Your task to perform on an android device: turn pop-ups off in chrome Image 0: 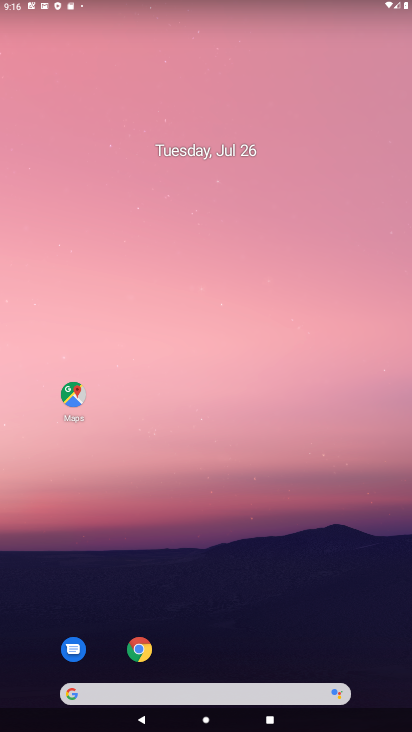
Step 0: drag from (183, 655) to (280, 59)
Your task to perform on an android device: turn pop-ups off in chrome Image 1: 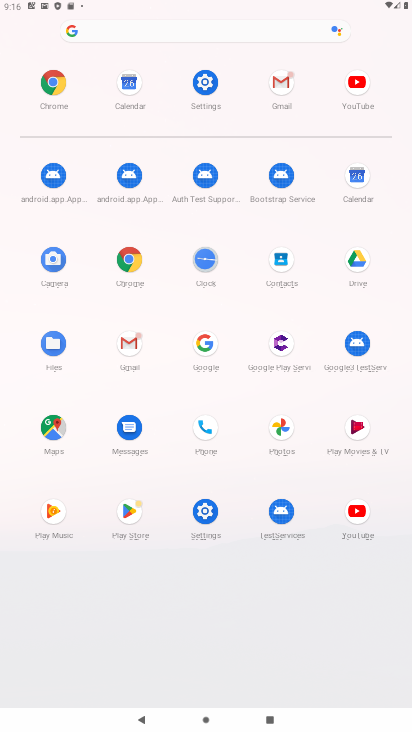
Step 1: click (119, 254)
Your task to perform on an android device: turn pop-ups off in chrome Image 2: 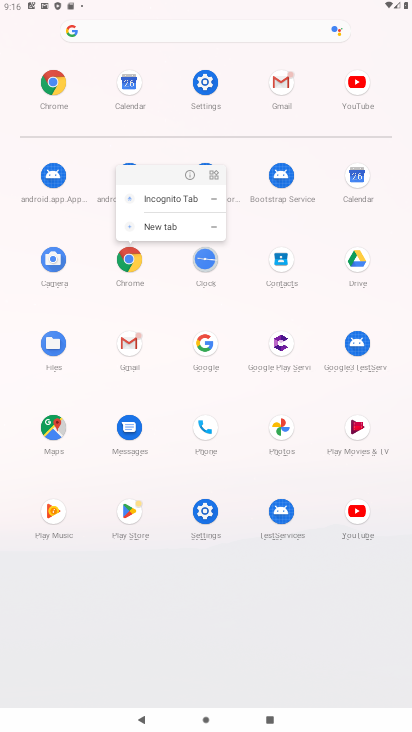
Step 2: click (188, 168)
Your task to perform on an android device: turn pop-ups off in chrome Image 3: 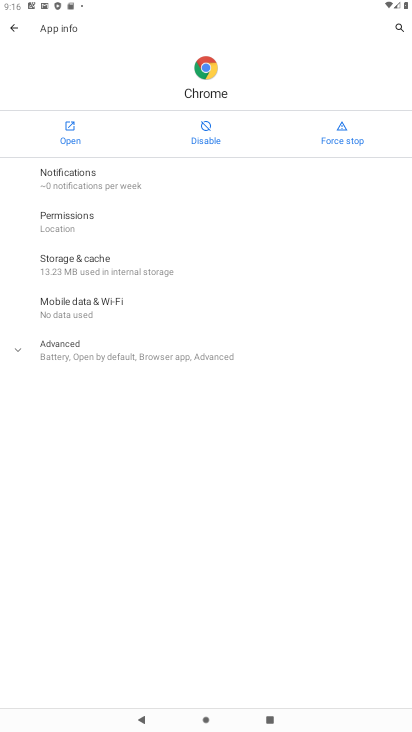
Step 3: click (68, 124)
Your task to perform on an android device: turn pop-ups off in chrome Image 4: 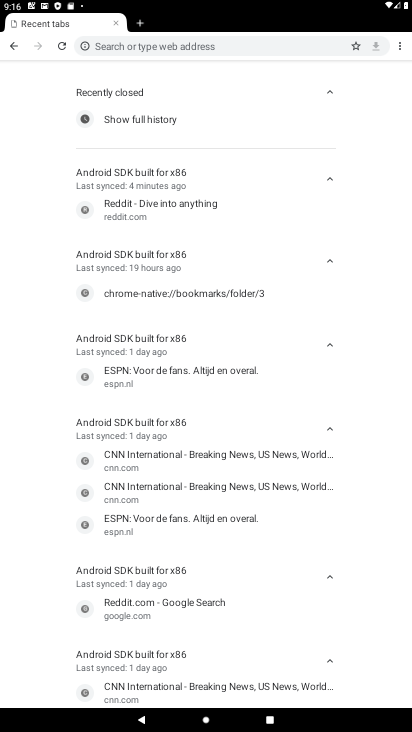
Step 4: drag from (184, 529) to (207, 88)
Your task to perform on an android device: turn pop-ups off in chrome Image 5: 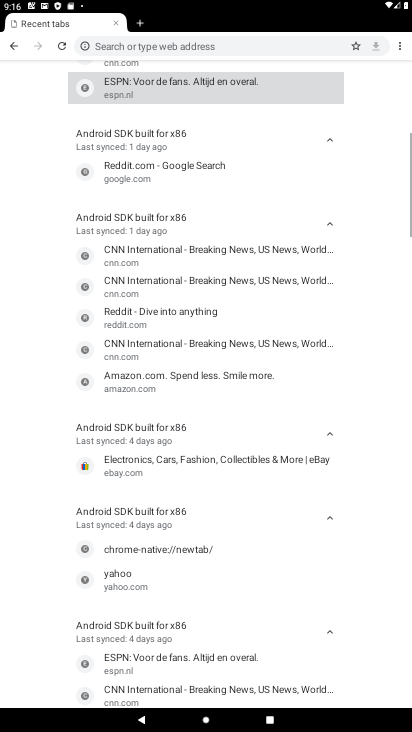
Step 5: drag from (215, 103) to (230, 670)
Your task to perform on an android device: turn pop-ups off in chrome Image 6: 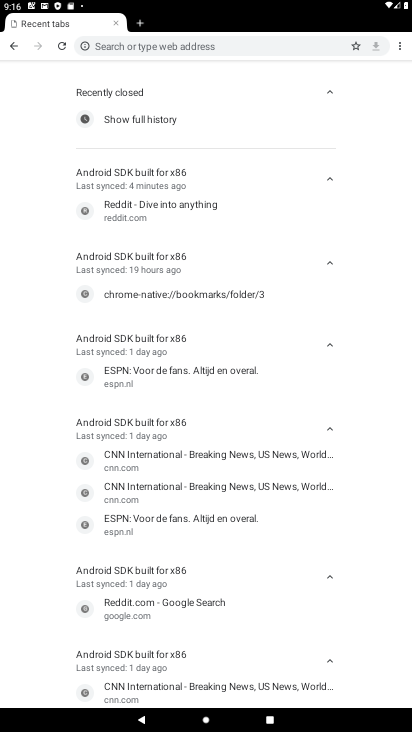
Step 6: drag from (397, 40) to (350, 216)
Your task to perform on an android device: turn pop-ups off in chrome Image 7: 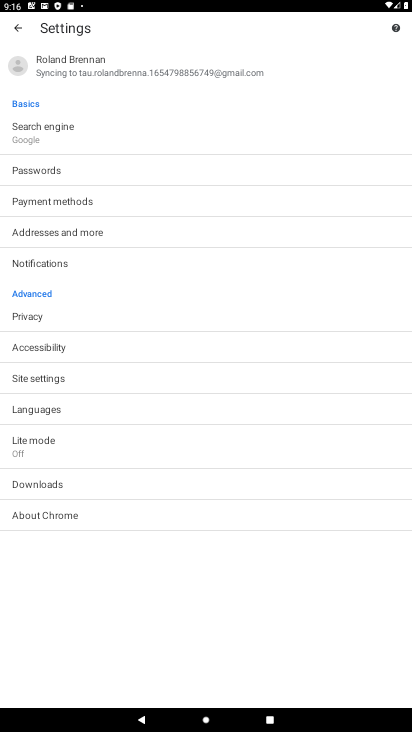
Step 7: click (72, 379)
Your task to perform on an android device: turn pop-ups off in chrome Image 8: 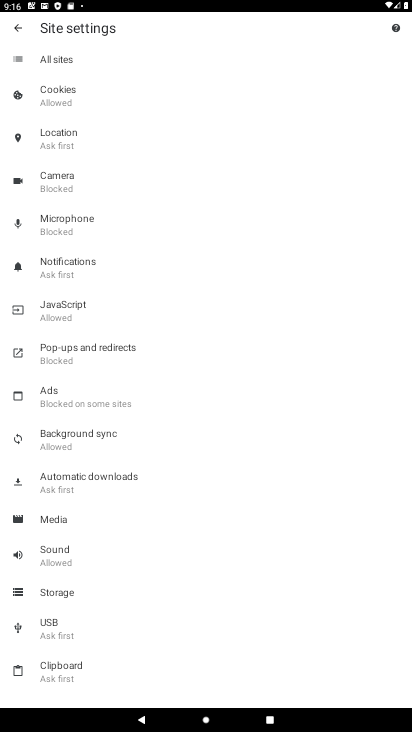
Step 8: click (66, 363)
Your task to perform on an android device: turn pop-ups off in chrome Image 9: 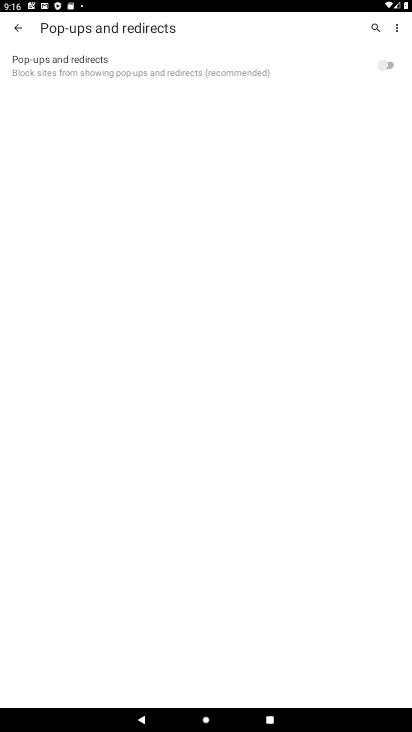
Step 9: task complete